Your task to perform on an android device: Go to display settings Image 0: 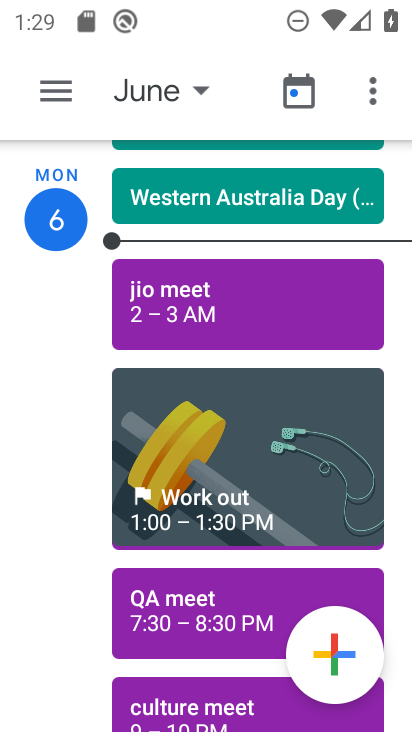
Step 0: press back button
Your task to perform on an android device: Go to display settings Image 1: 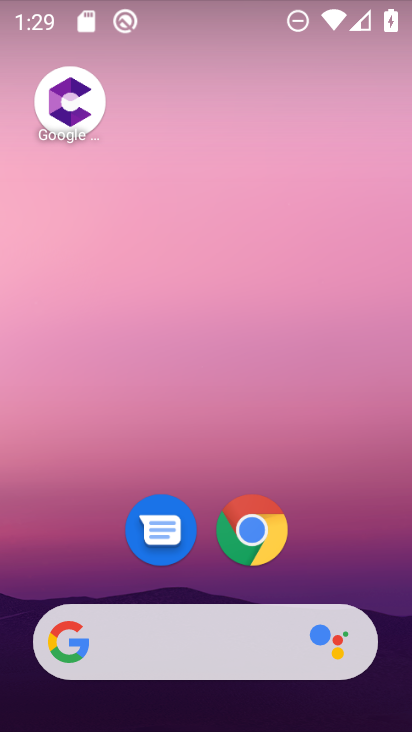
Step 1: drag from (326, 548) to (226, 94)
Your task to perform on an android device: Go to display settings Image 2: 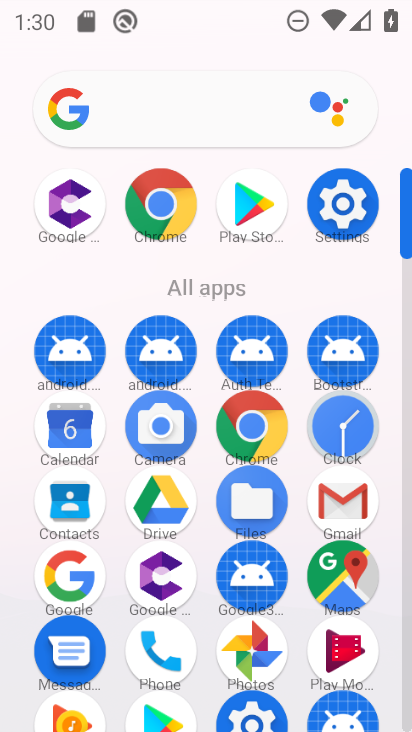
Step 2: click (344, 205)
Your task to perform on an android device: Go to display settings Image 3: 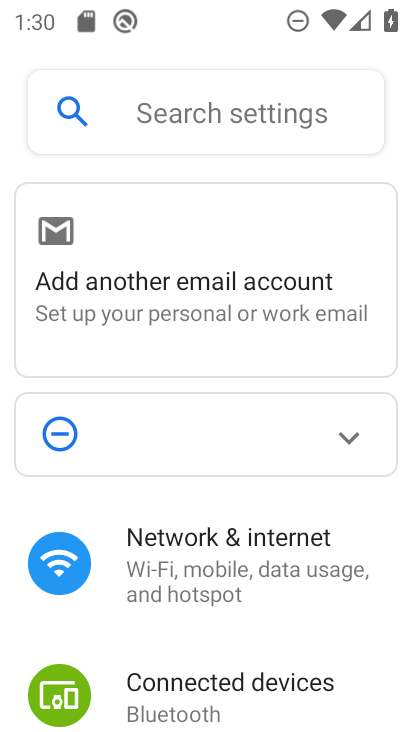
Step 3: drag from (243, 639) to (285, 389)
Your task to perform on an android device: Go to display settings Image 4: 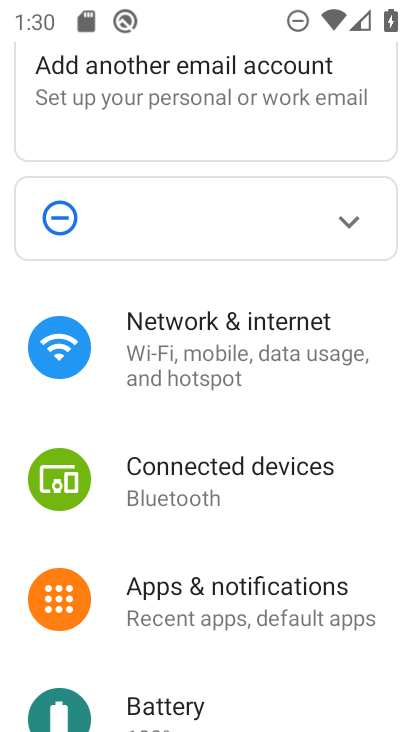
Step 4: drag from (224, 659) to (240, 516)
Your task to perform on an android device: Go to display settings Image 5: 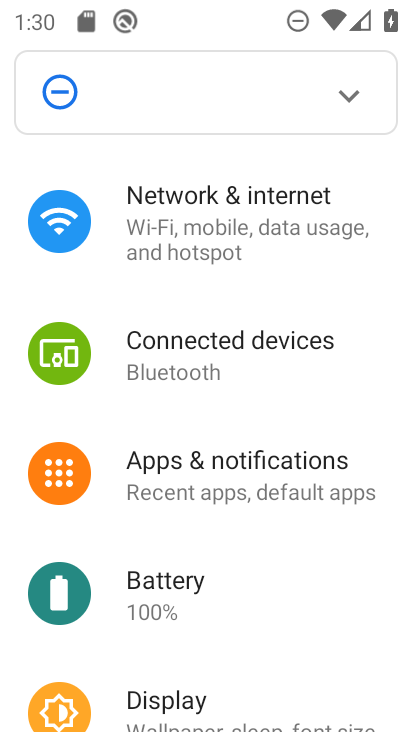
Step 5: drag from (214, 631) to (211, 523)
Your task to perform on an android device: Go to display settings Image 6: 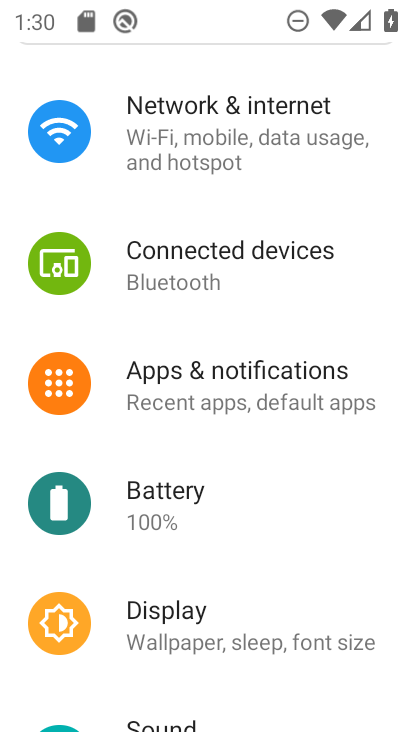
Step 6: click (184, 631)
Your task to perform on an android device: Go to display settings Image 7: 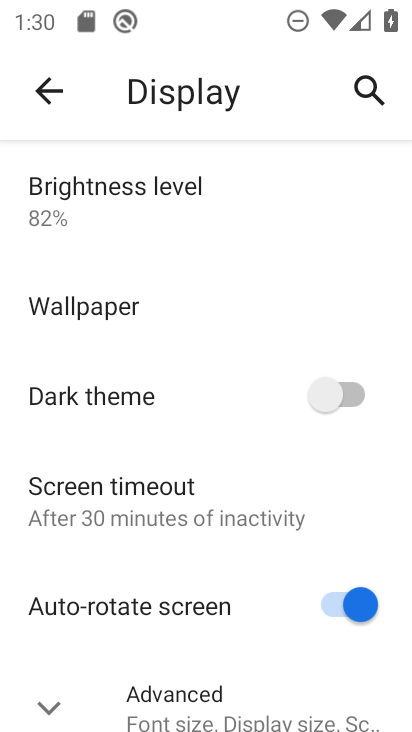
Step 7: task complete